Your task to perform on an android device: set the stopwatch Image 0: 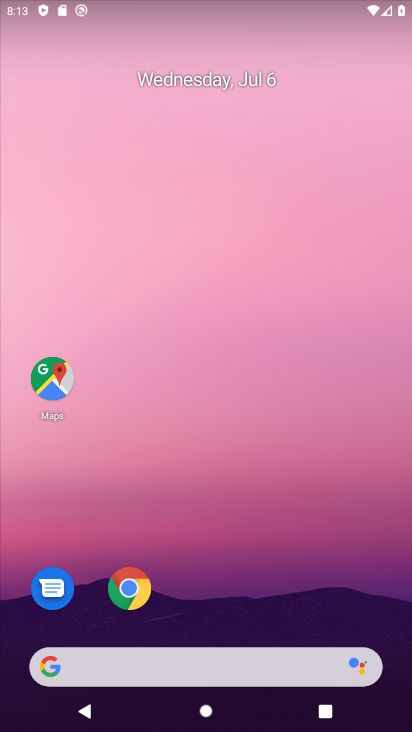
Step 0: drag from (293, 602) to (233, 159)
Your task to perform on an android device: set the stopwatch Image 1: 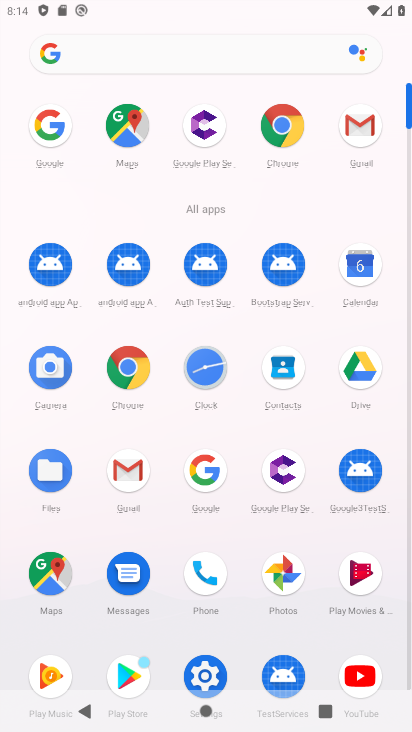
Step 1: click (213, 361)
Your task to perform on an android device: set the stopwatch Image 2: 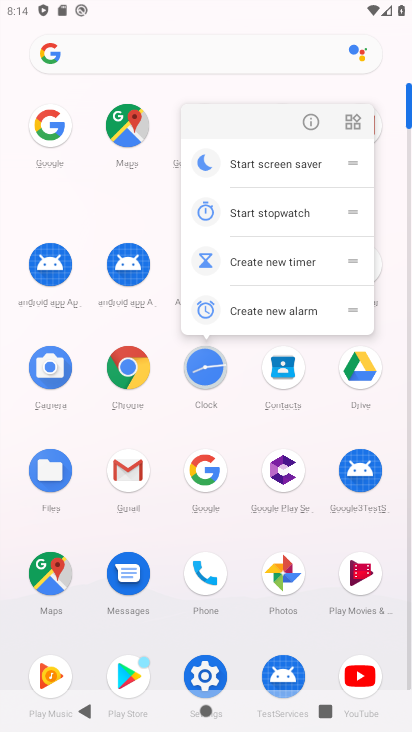
Step 2: click (192, 356)
Your task to perform on an android device: set the stopwatch Image 3: 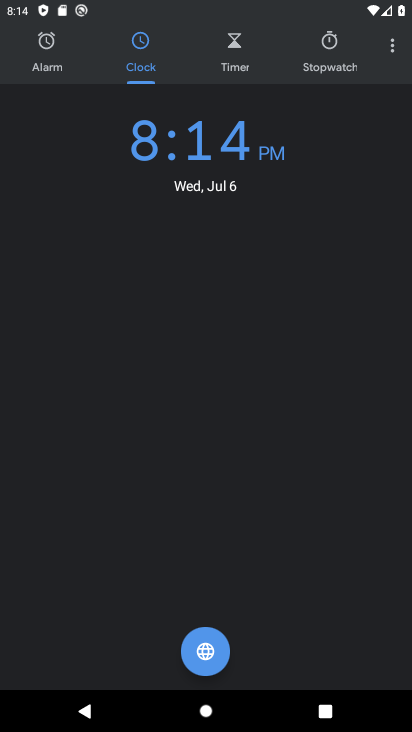
Step 3: click (328, 49)
Your task to perform on an android device: set the stopwatch Image 4: 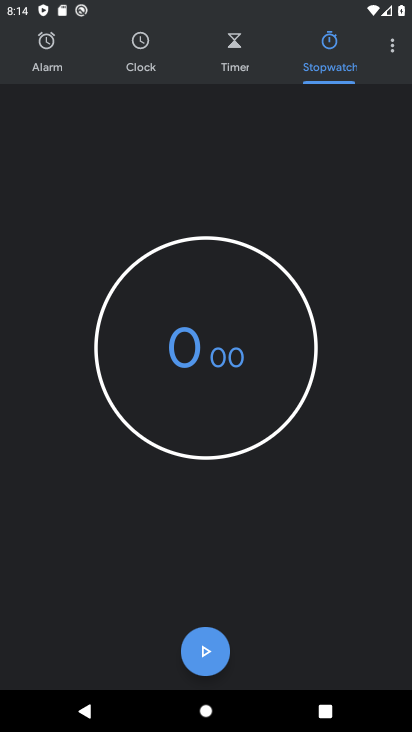
Step 4: click (210, 647)
Your task to perform on an android device: set the stopwatch Image 5: 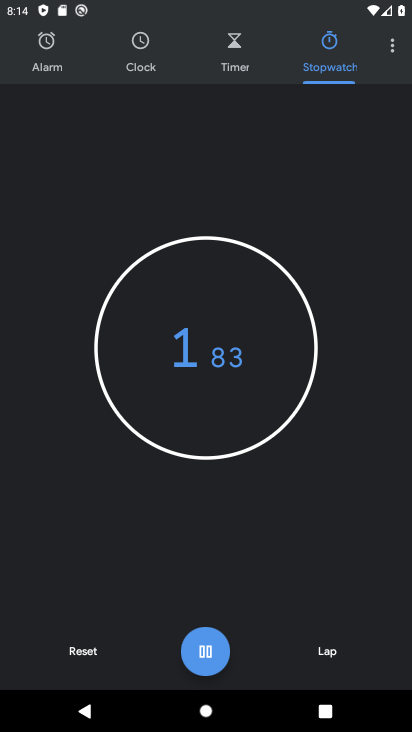
Step 5: click (210, 647)
Your task to perform on an android device: set the stopwatch Image 6: 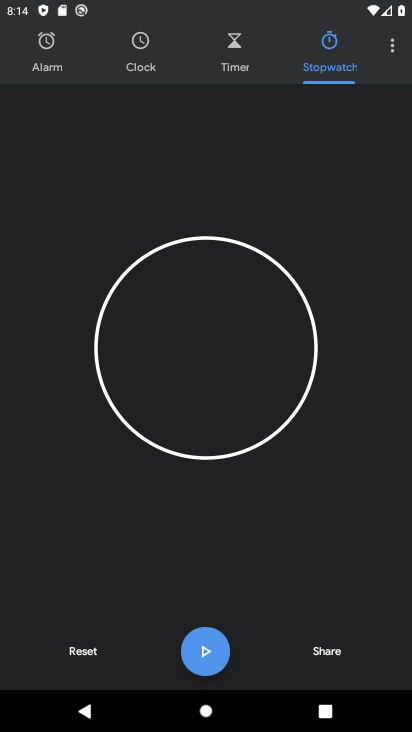
Step 6: click (78, 649)
Your task to perform on an android device: set the stopwatch Image 7: 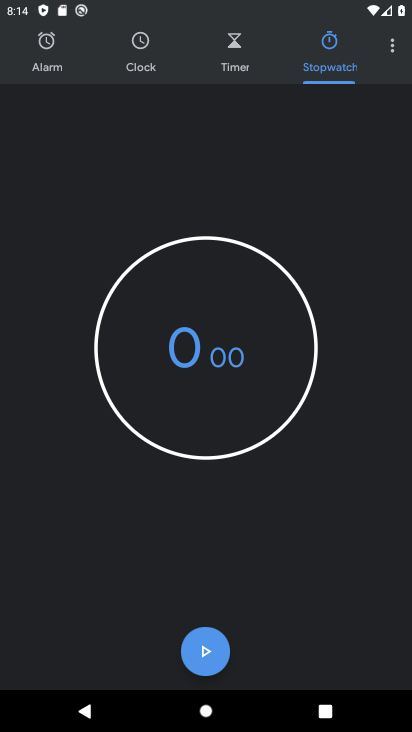
Step 7: task complete